Your task to perform on an android device: Check the weather Image 0: 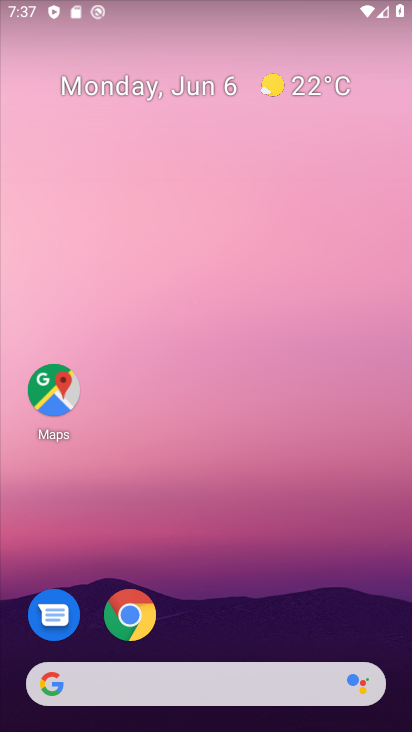
Step 0: drag from (4, 240) to (355, 258)
Your task to perform on an android device: Check the weather Image 1: 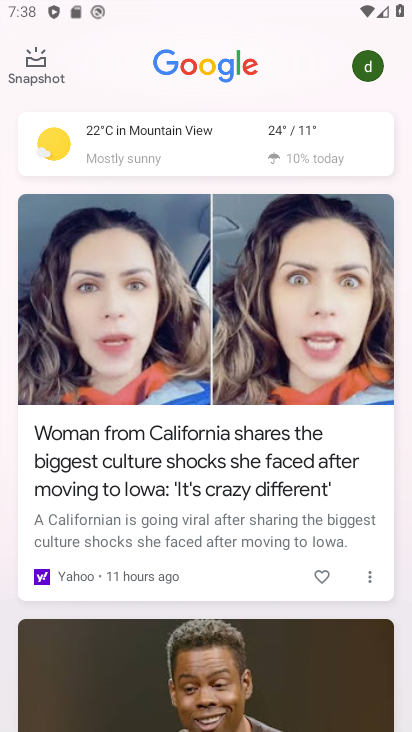
Step 1: click (281, 136)
Your task to perform on an android device: Check the weather Image 2: 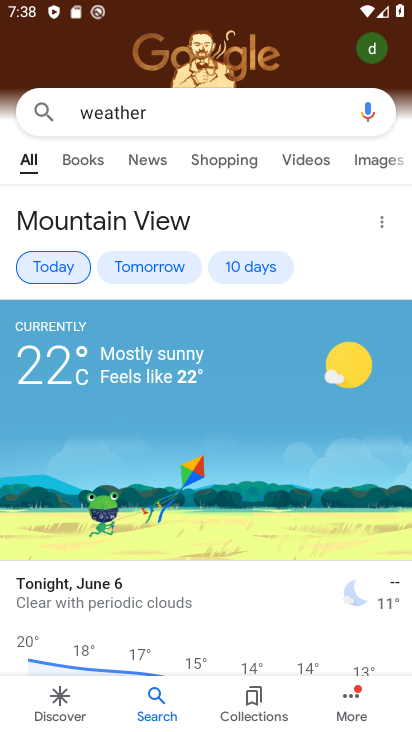
Step 2: task complete